Your task to perform on an android device: read, delete, or share a saved page in the chrome app Image 0: 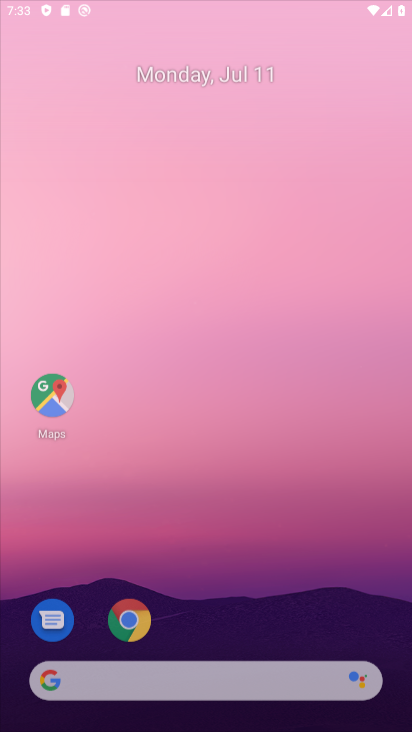
Step 0: click (157, 4)
Your task to perform on an android device: read, delete, or share a saved page in the chrome app Image 1: 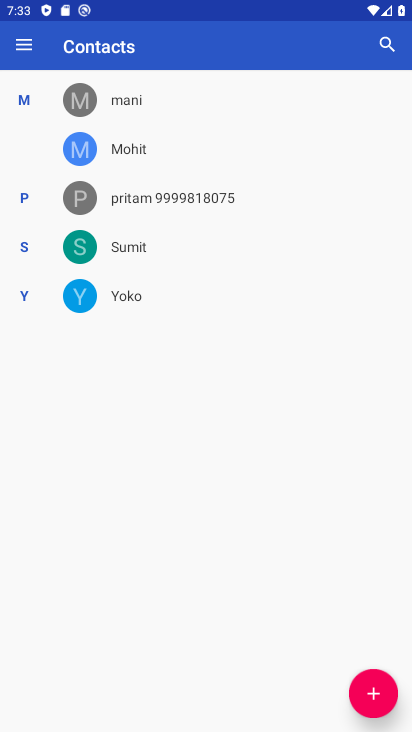
Step 1: press home button
Your task to perform on an android device: read, delete, or share a saved page in the chrome app Image 2: 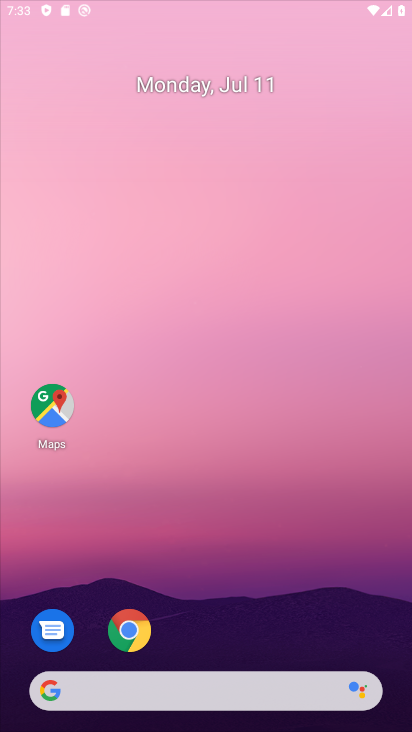
Step 2: drag from (153, 95) to (191, 12)
Your task to perform on an android device: read, delete, or share a saved page in the chrome app Image 3: 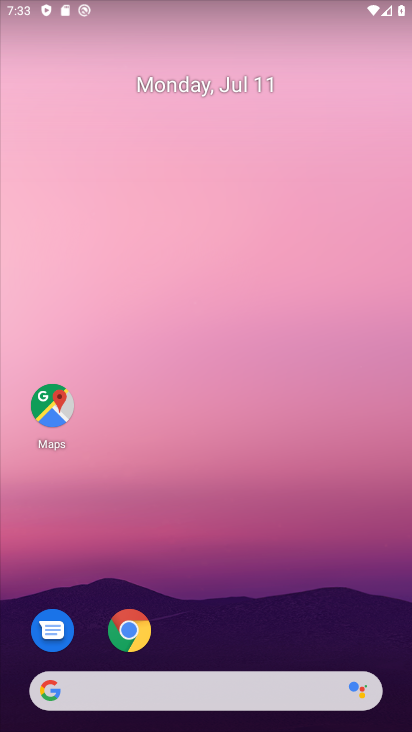
Step 3: click (122, 629)
Your task to perform on an android device: read, delete, or share a saved page in the chrome app Image 4: 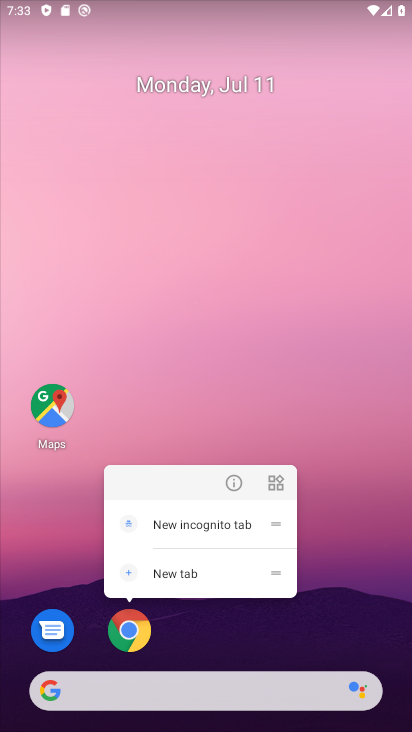
Step 4: click (231, 482)
Your task to perform on an android device: read, delete, or share a saved page in the chrome app Image 5: 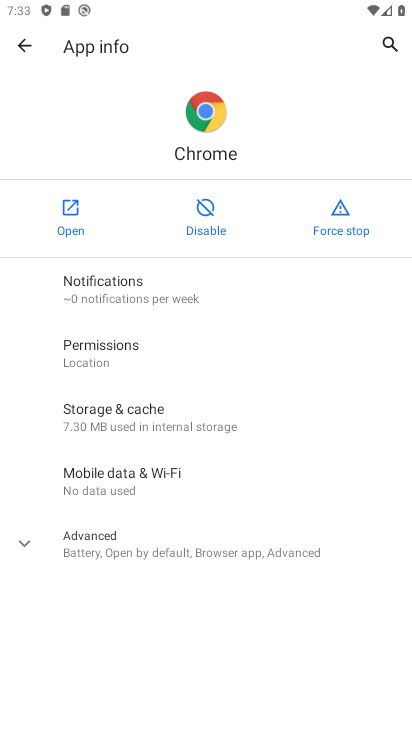
Step 5: click (68, 215)
Your task to perform on an android device: read, delete, or share a saved page in the chrome app Image 6: 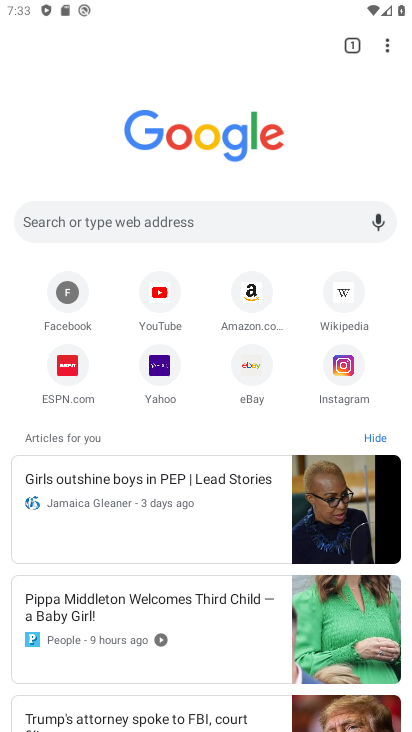
Step 6: click (387, 43)
Your task to perform on an android device: read, delete, or share a saved page in the chrome app Image 7: 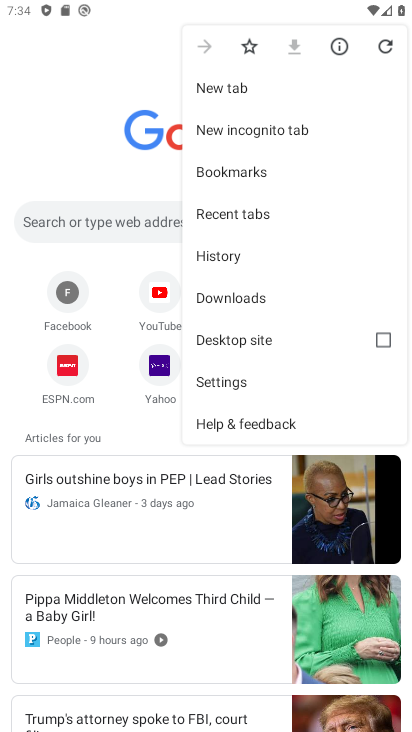
Step 7: click (246, 175)
Your task to perform on an android device: read, delete, or share a saved page in the chrome app Image 8: 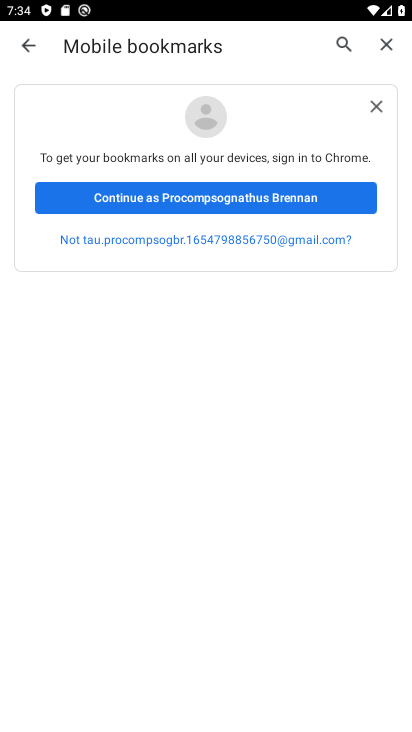
Step 8: drag from (209, 620) to (260, 258)
Your task to perform on an android device: read, delete, or share a saved page in the chrome app Image 9: 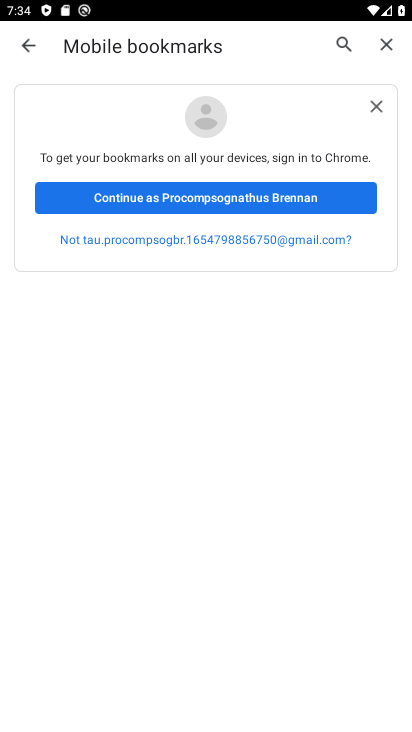
Step 9: click (383, 109)
Your task to perform on an android device: read, delete, or share a saved page in the chrome app Image 10: 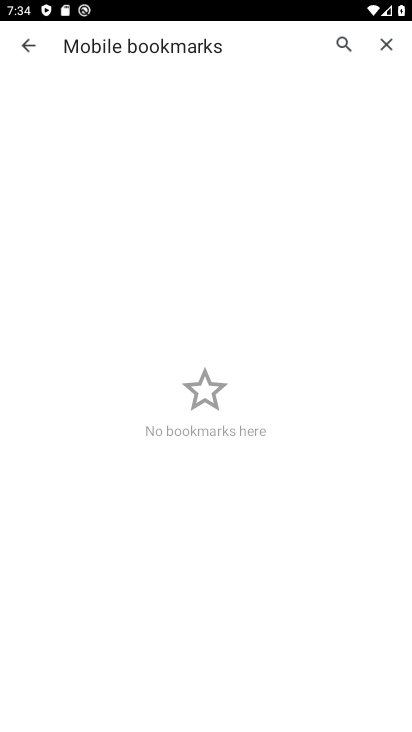
Step 10: task complete